Your task to perform on an android device: delete a single message in the gmail app Image 0: 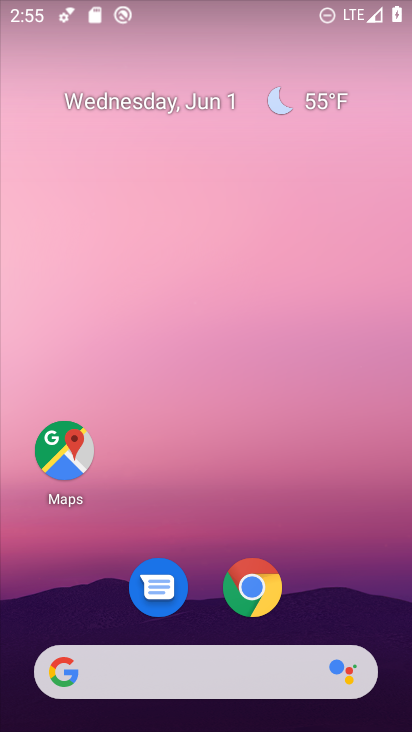
Step 0: drag from (225, 655) to (245, 136)
Your task to perform on an android device: delete a single message in the gmail app Image 1: 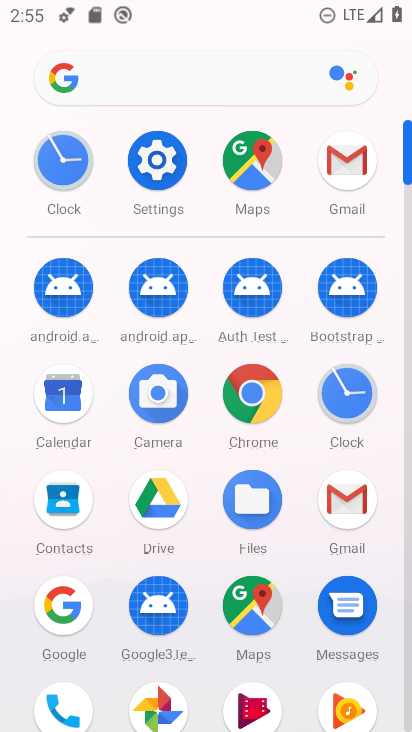
Step 1: click (349, 168)
Your task to perform on an android device: delete a single message in the gmail app Image 2: 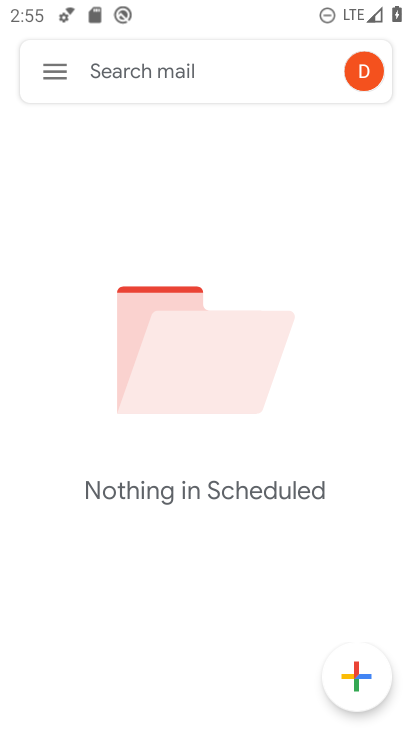
Step 2: click (52, 67)
Your task to perform on an android device: delete a single message in the gmail app Image 3: 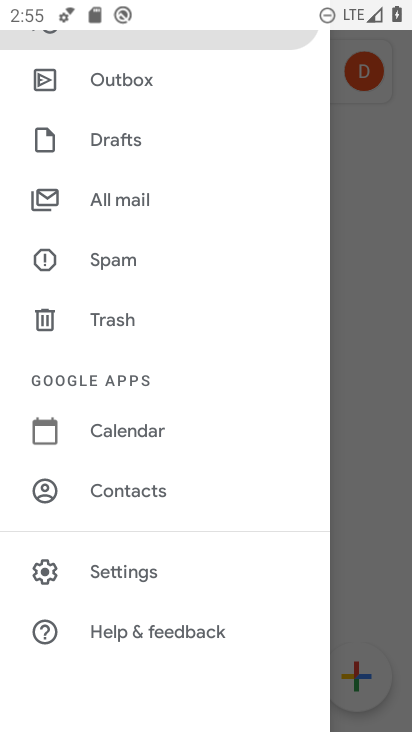
Step 3: click (81, 196)
Your task to perform on an android device: delete a single message in the gmail app Image 4: 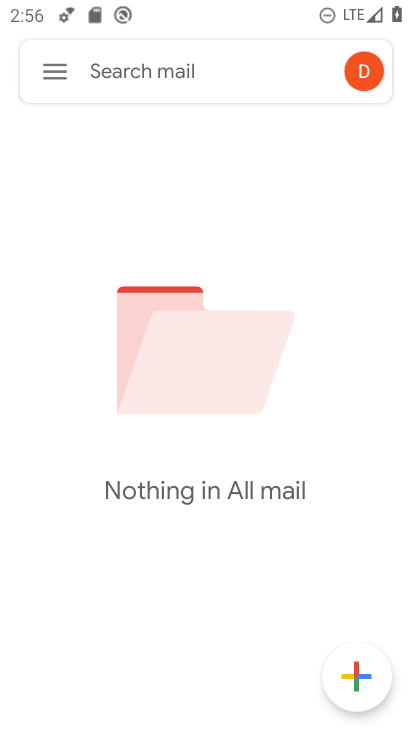
Step 4: task complete